Your task to perform on an android device: Do I have any events tomorrow? Image 0: 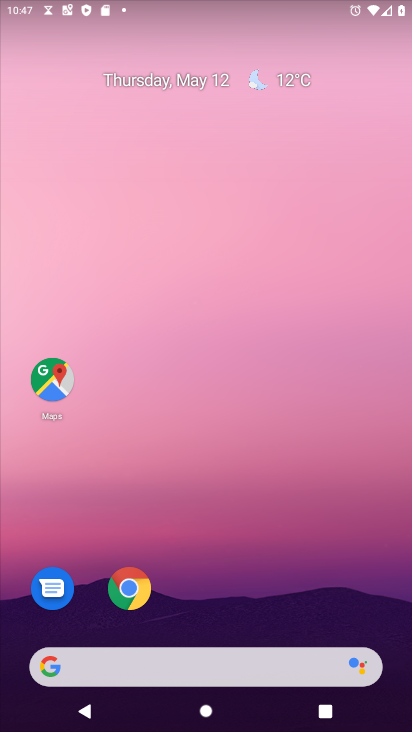
Step 0: drag from (263, 593) to (189, 87)
Your task to perform on an android device: Do I have any events tomorrow? Image 1: 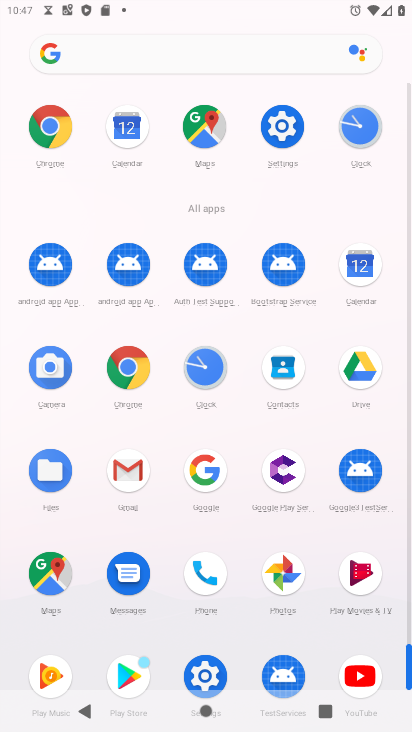
Step 1: click (127, 126)
Your task to perform on an android device: Do I have any events tomorrow? Image 2: 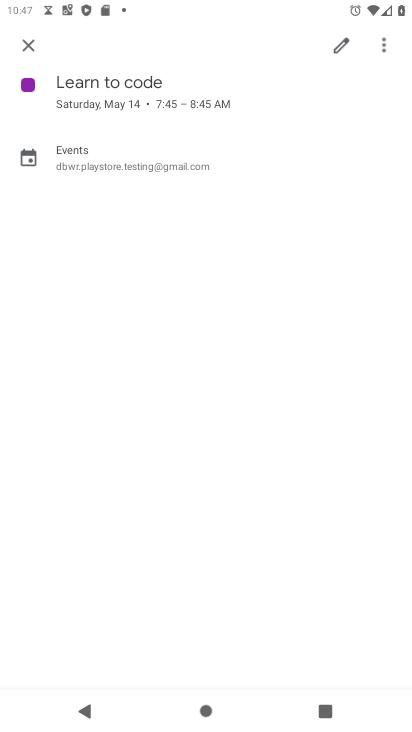
Step 2: click (31, 48)
Your task to perform on an android device: Do I have any events tomorrow? Image 3: 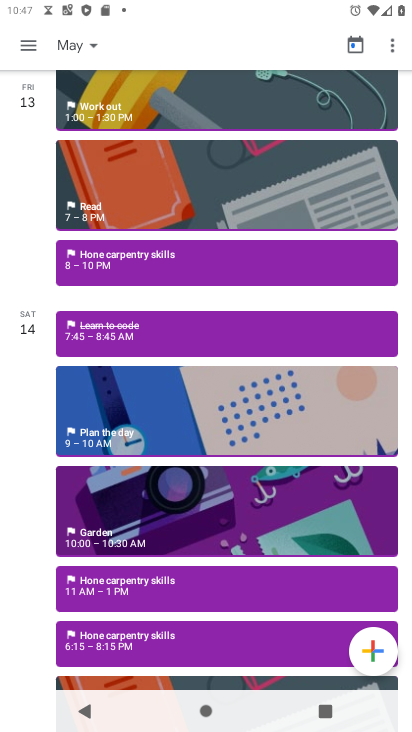
Step 3: click (361, 44)
Your task to perform on an android device: Do I have any events tomorrow? Image 4: 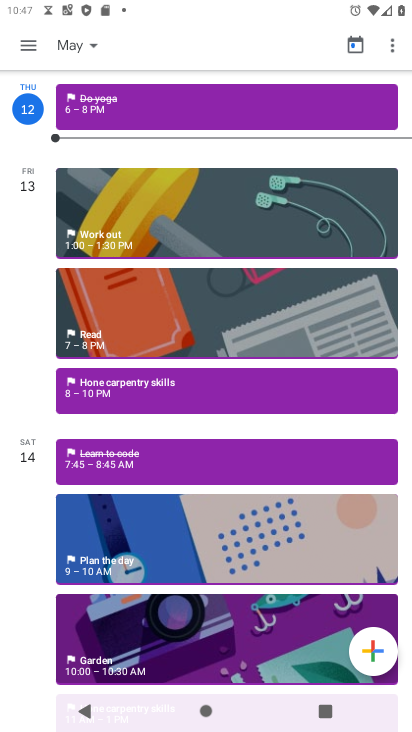
Step 4: click (88, 43)
Your task to perform on an android device: Do I have any events tomorrow? Image 5: 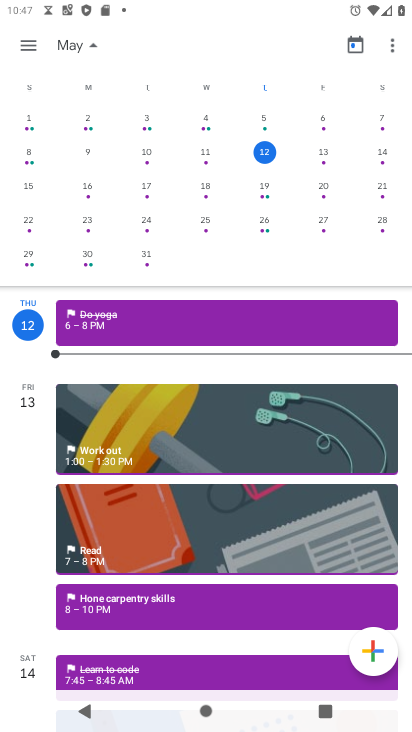
Step 5: click (329, 152)
Your task to perform on an android device: Do I have any events tomorrow? Image 6: 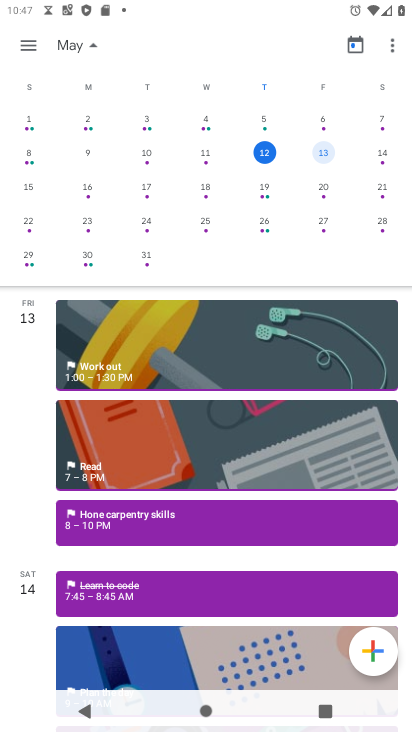
Step 6: click (218, 515)
Your task to perform on an android device: Do I have any events tomorrow? Image 7: 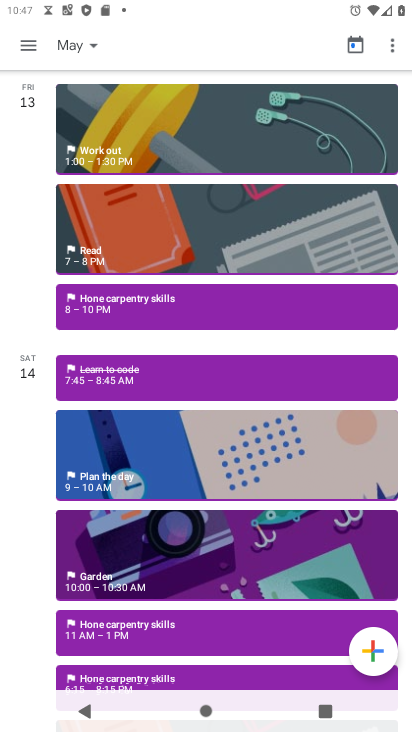
Step 7: click (166, 292)
Your task to perform on an android device: Do I have any events tomorrow? Image 8: 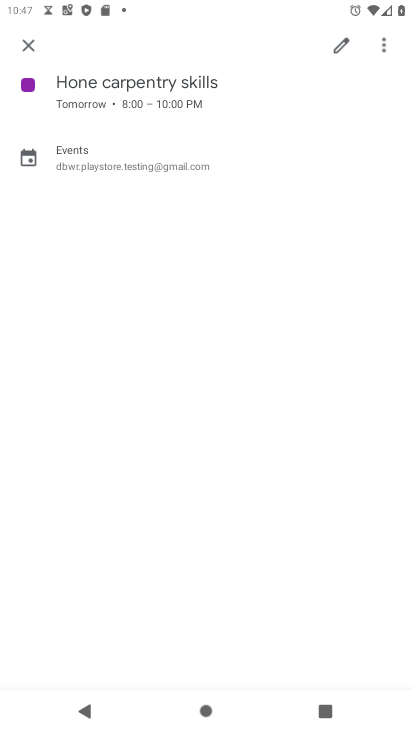
Step 8: task complete